Your task to perform on an android device: open app "Yahoo Mail" (install if not already installed) Image 0: 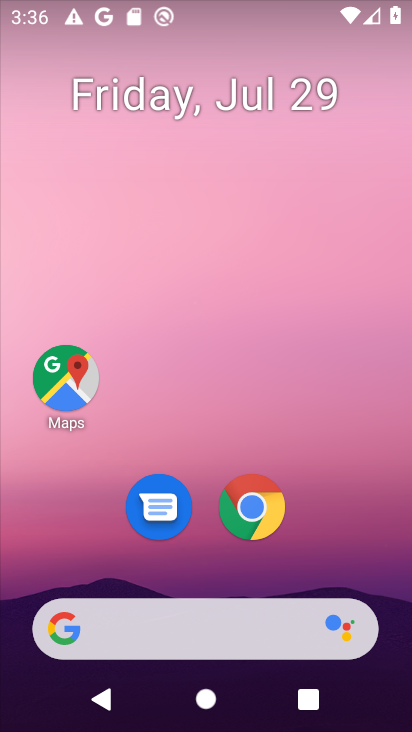
Step 0: click (157, 641)
Your task to perform on an android device: open app "Yahoo Mail" (install if not already installed) Image 1: 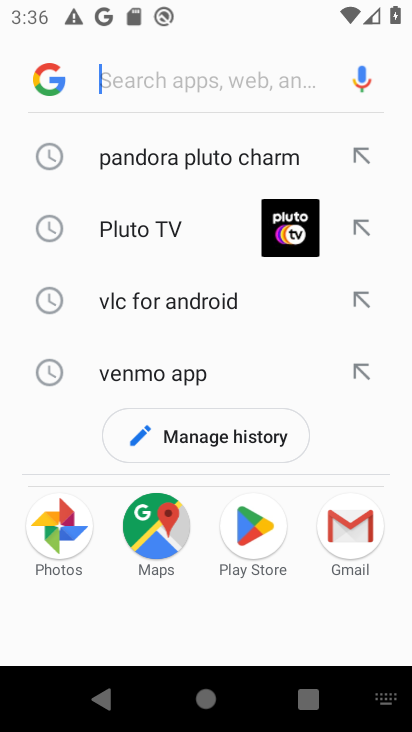
Step 1: type "yahoo"
Your task to perform on an android device: open app "Yahoo Mail" (install if not already installed) Image 2: 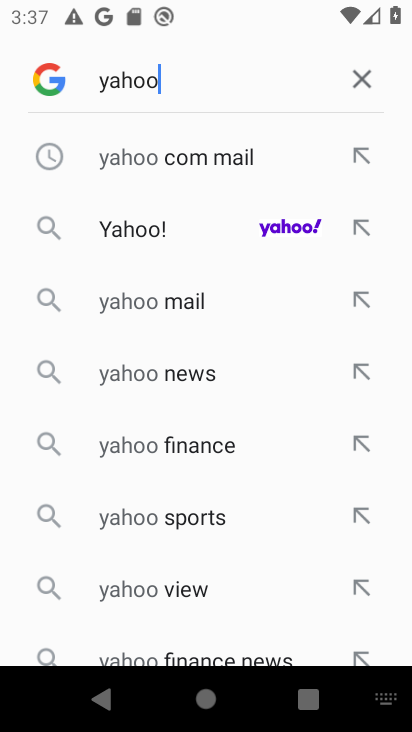
Step 2: click (166, 214)
Your task to perform on an android device: open app "Yahoo Mail" (install if not already installed) Image 3: 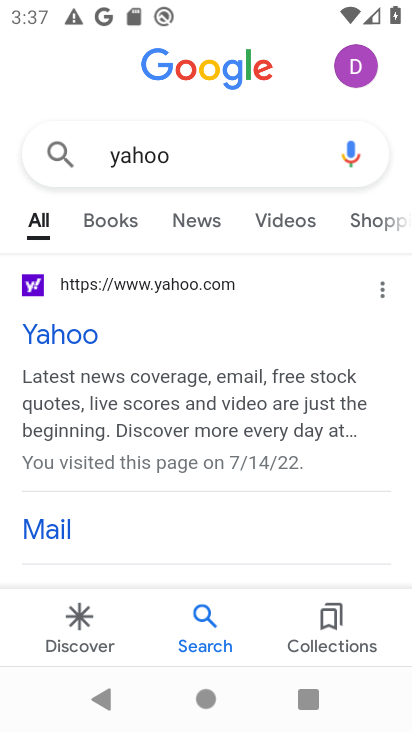
Step 3: click (70, 341)
Your task to perform on an android device: open app "Yahoo Mail" (install if not already installed) Image 4: 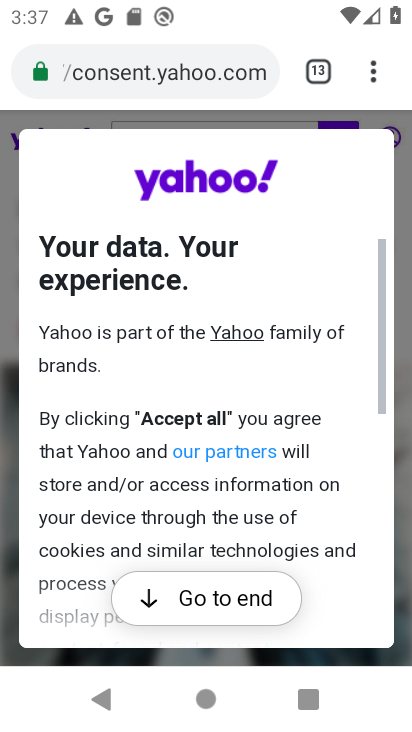
Step 4: click (202, 619)
Your task to perform on an android device: open app "Yahoo Mail" (install if not already installed) Image 5: 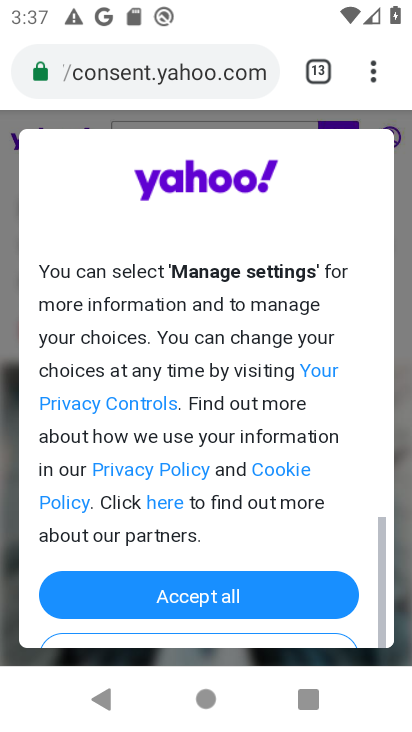
Step 5: task complete